Your task to perform on an android device: Search for Italian restaurants on Maps Image 0: 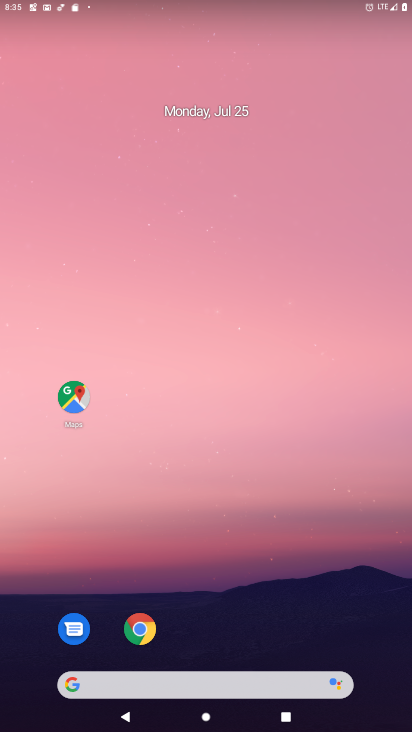
Step 0: drag from (190, 676) to (210, 237)
Your task to perform on an android device: Search for Italian restaurants on Maps Image 1: 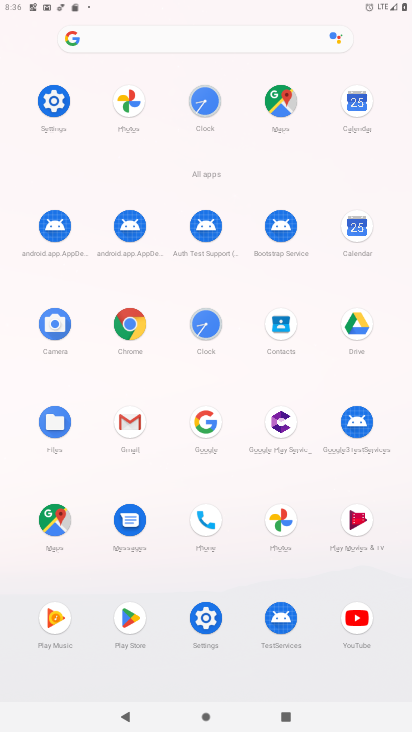
Step 1: click (54, 521)
Your task to perform on an android device: Search for Italian restaurants on Maps Image 2: 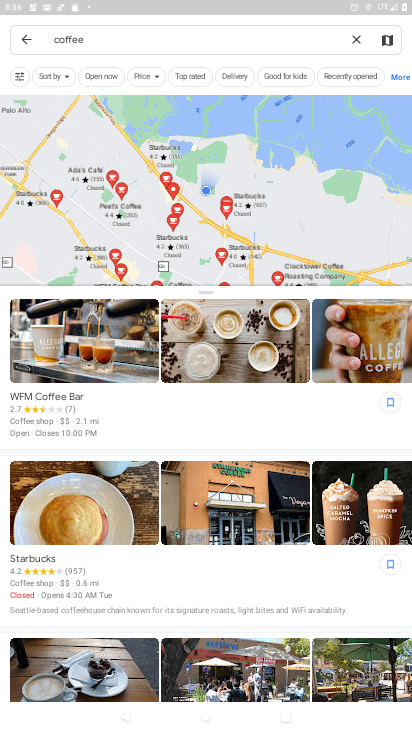
Step 2: click (356, 42)
Your task to perform on an android device: Search for Italian restaurants on Maps Image 3: 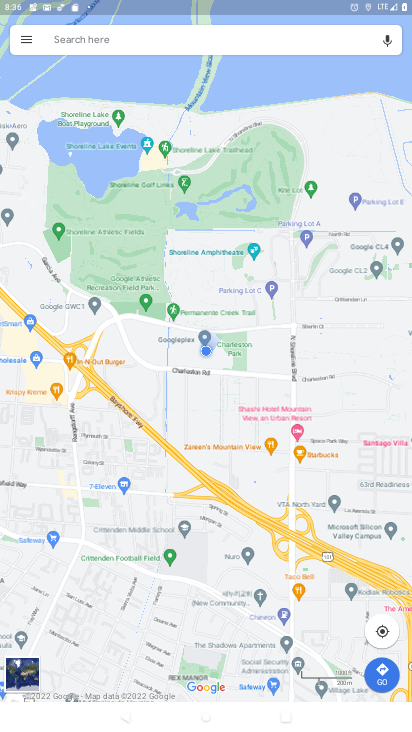
Step 3: click (266, 42)
Your task to perform on an android device: Search for Italian restaurants on Maps Image 4: 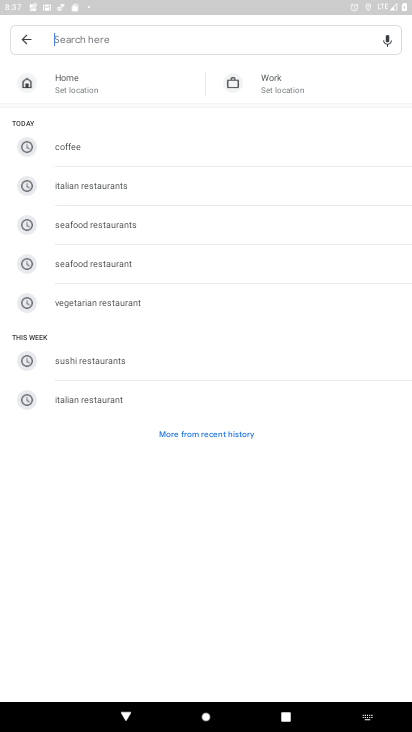
Step 4: type "Italian restaurants"
Your task to perform on an android device: Search for Italian restaurants on Maps Image 5: 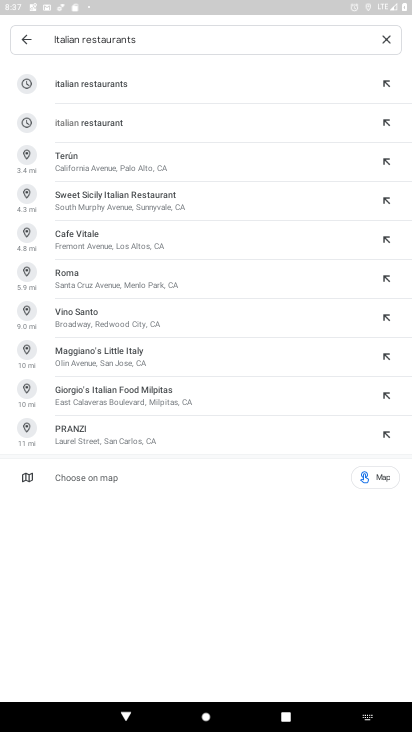
Step 5: click (119, 81)
Your task to perform on an android device: Search for Italian restaurants on Maps Image 6: 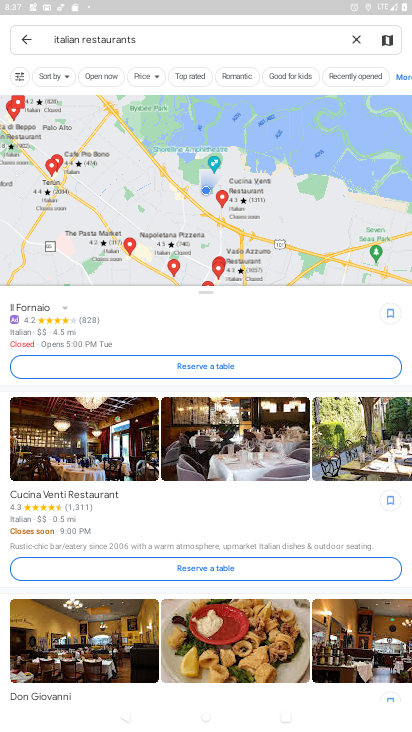
Step 6: task complete